Your task to perform on an android device: Open privacy settings Image 0: 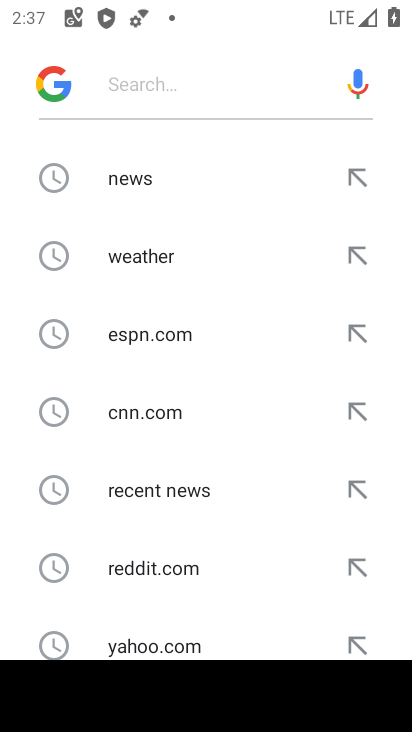
Step 0: press home button
Your task to perform on an android device: Open privacy settings Image 1: 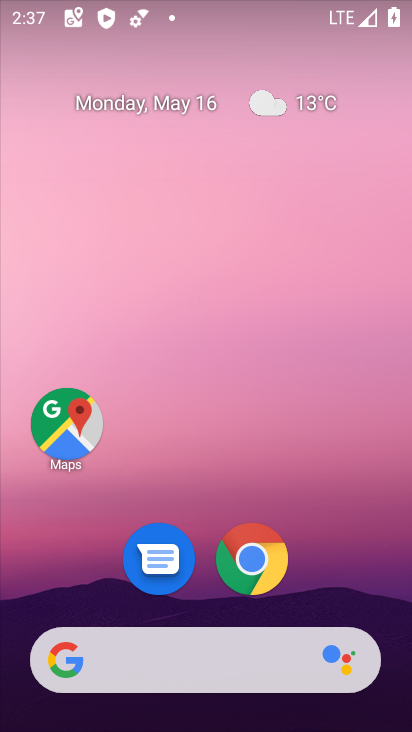
Step 1: drag from (193, 584) to (281, 71)
Your task to perform on an android device: Open privacy settings Image 2: 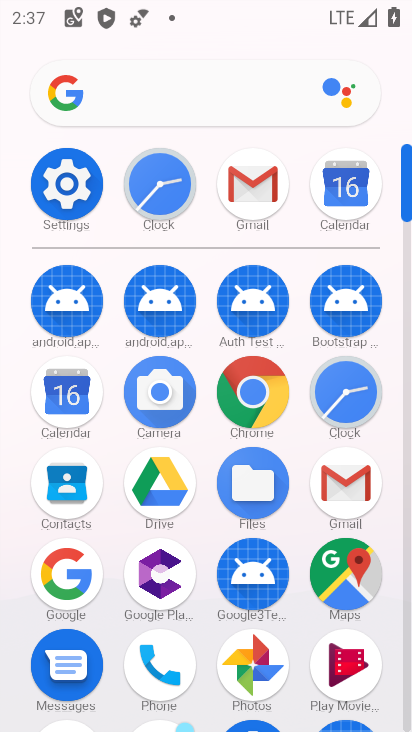
Step 2: click (68, 180)
Your task to perform on an android device: Open privacy settings Image 3: 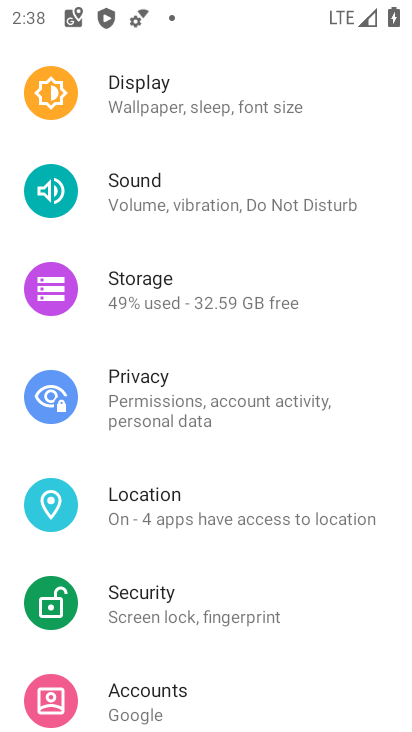
Step 3: click (162, 406)
Your task to perform on an android device: Open privacy settings Image 4: 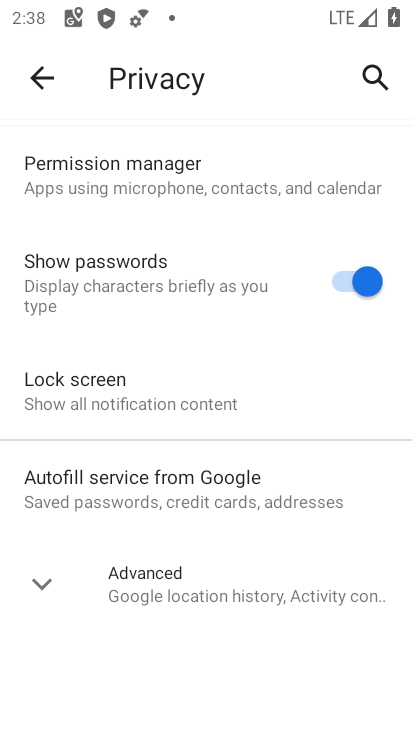
Step 4: task complete